Your task to perform on an android device: open the mobile data screen to see how much data has been used Image 0: 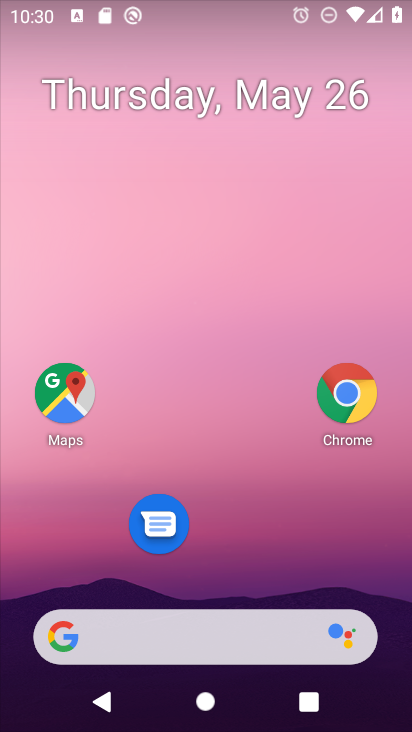
Step 0: drag from (282, 507) to (274, 23)
Your task to perform on an android device: open the mobile data screen to see how much data has been used Image 1: 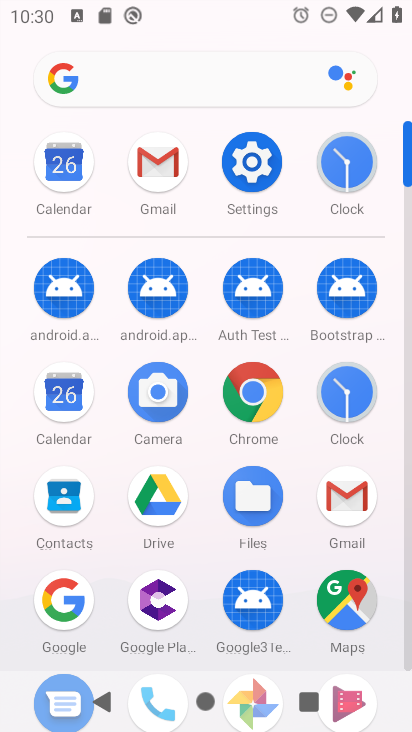
Step 1: click (250, 143)
Your task to perform on an android device: open the mobile data screen to see how much data has been used Image 2: 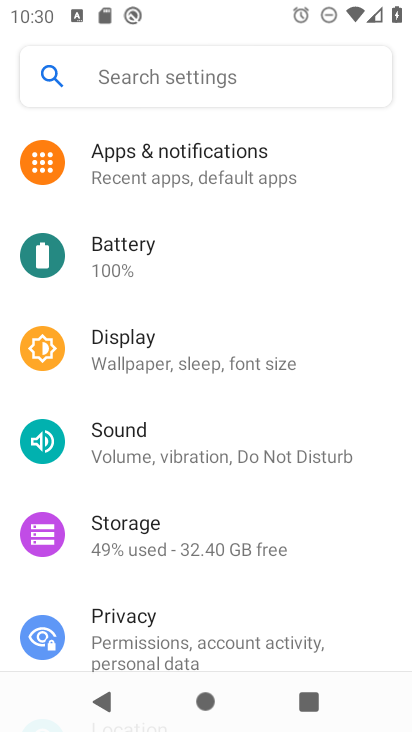
Step 2: drag from (232, 218) to (226, 647)
Your task to perform on an android device: open the mobile data screen to see how much data has been used Image 3: 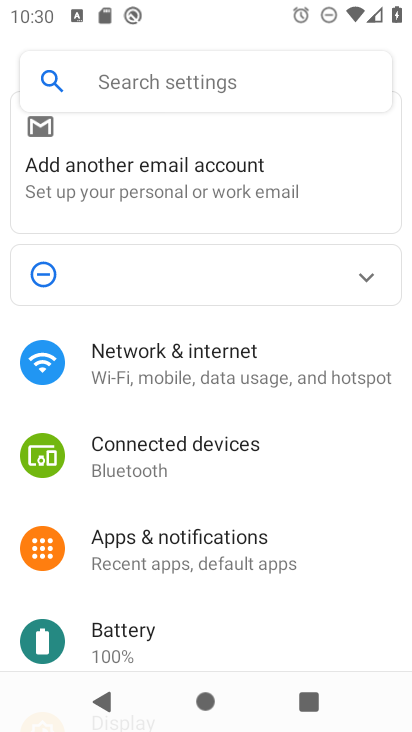
Step 3: click (261, 351)
Your task to perform on an android device: open the mobile data screen to see how much data has been used Image 4: 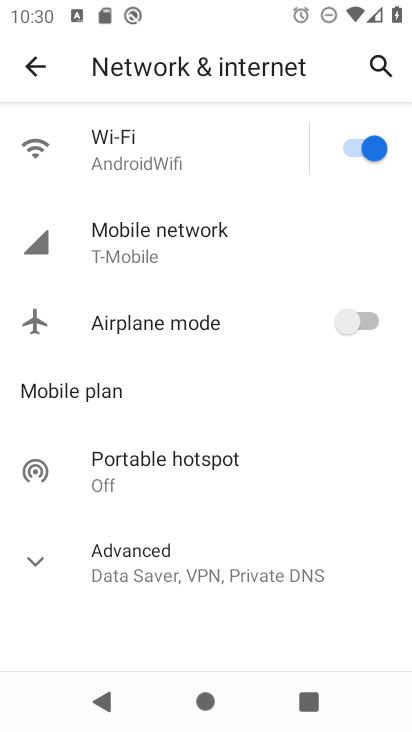
Step 4: click (239, 232)
Your task to perform on an android device: open the mobile data screen to see how much data has been used Image 5: 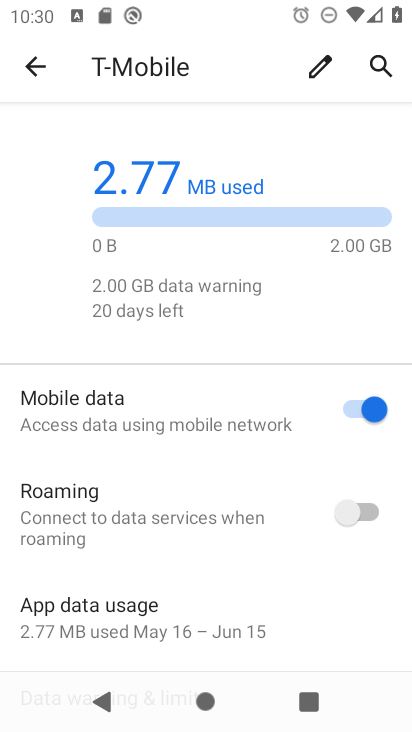
Step 5: task complete